Your task to perform on an android device: Go to internet settings Image 0: 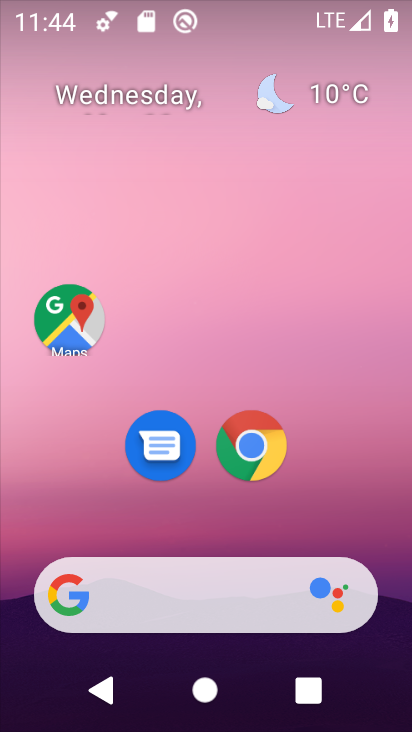
Step 0: drag from (238, 504) to (238, 31)
Your task to perform on an android device: Go to internet settings Image 1: 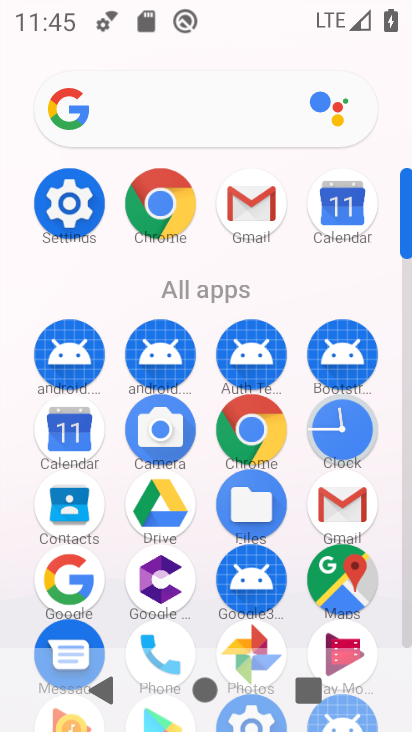
Step 1: click (77, 201)
Your task to perform on an android device: Go to internet settings Image 2: 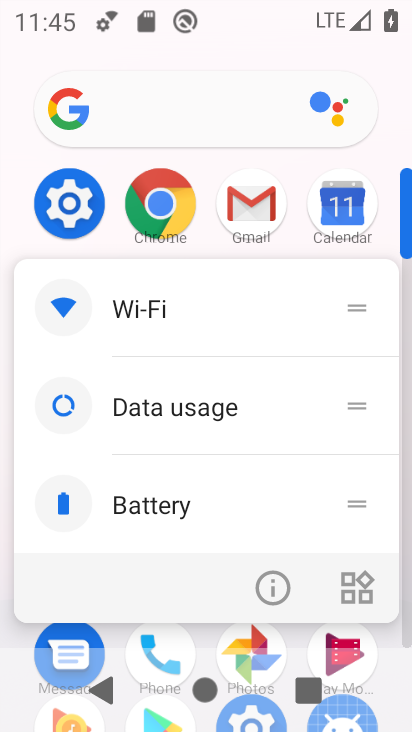
Step 2: click (76, 213)
Your task to perform on an android device: Go to internet settings Image 3: 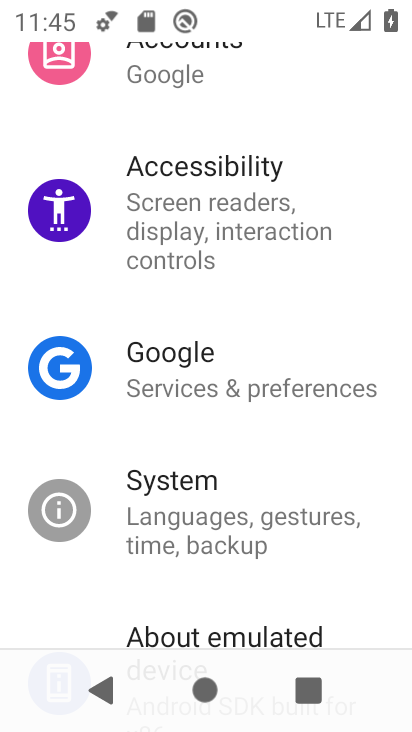
Step 3: drag from (293, 142) to (242, 644)
Your task to perform on an android device: Go to internet settings Image 4: 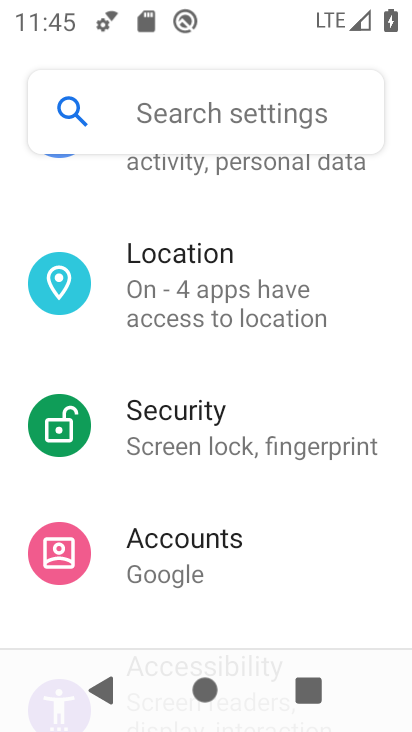
Step 4: drag from (200, 275) to (188, 731)
Your task to perform on an android device: Go to internet settings Image 5: 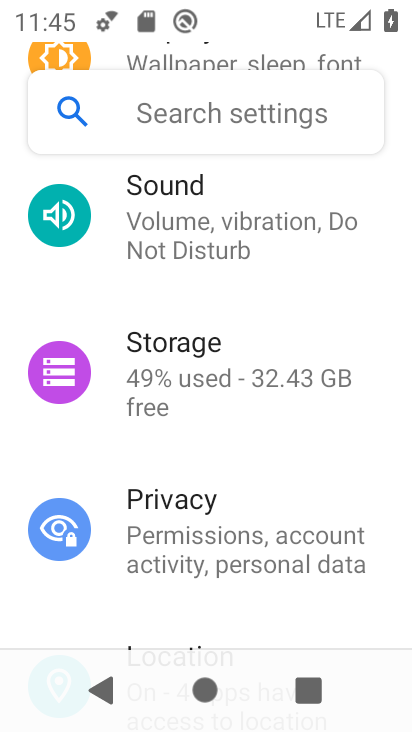
Step 5: drag from (194, 289) to (191, 691)
Your task to perform on an android device: Go to internet settings Image 6: 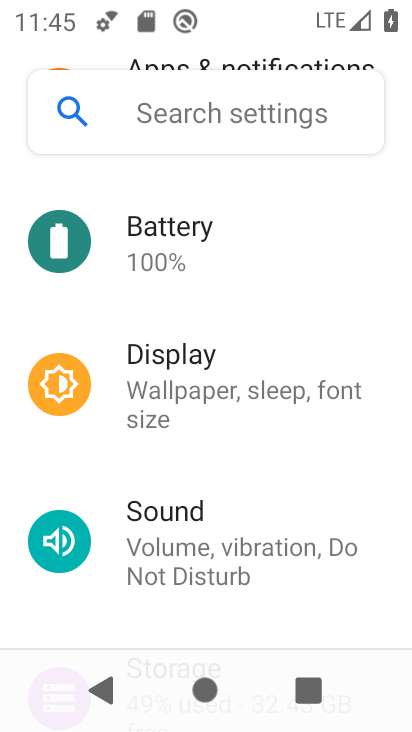
Step 6: drag from (280, 241) to (212, 721)
Your task to perform on an android device: Go to internet settings Image 7: 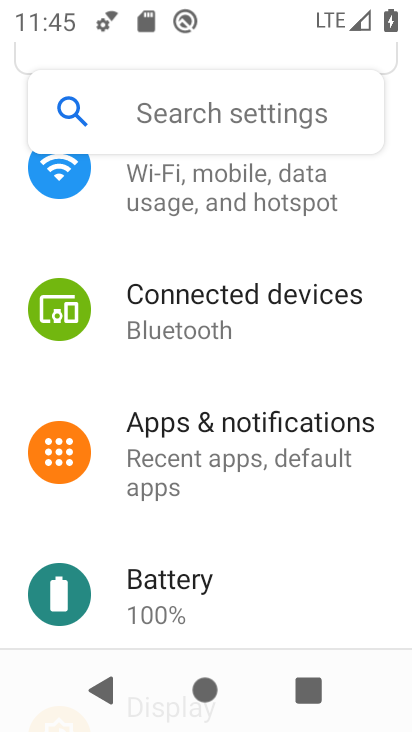
Step 7: drag from (222, 271) to (166, 695)
Your task to perform on an android device: Go to internet settings Image 8: 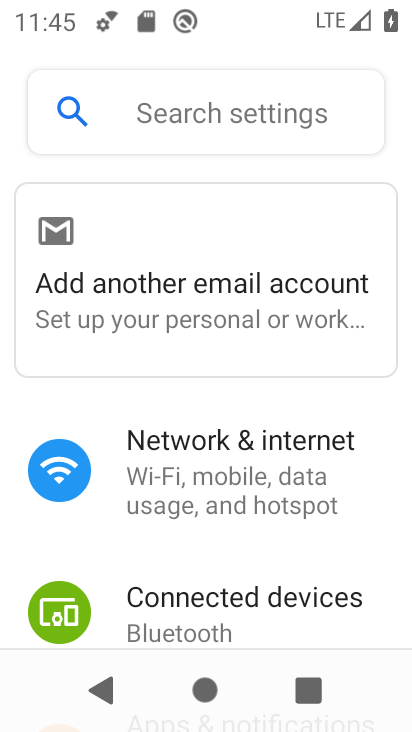
Step 8: click (230, 474)
Your task to perform on an android device: Go to internet settings Image 9: 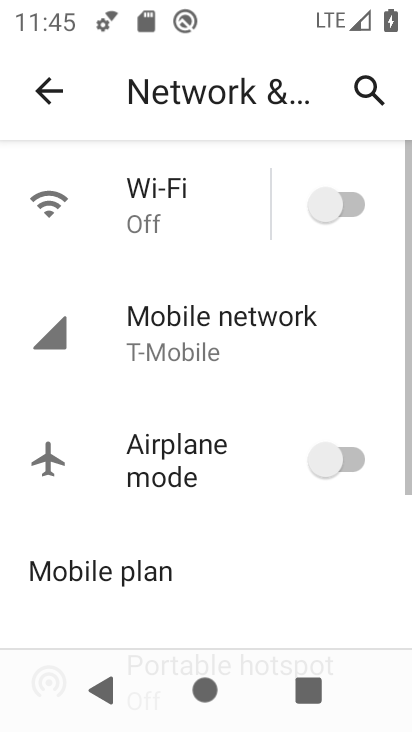
Step 9: task complete